Your task to perform on an android device: turn on the 24-hour format for clock Image 0: 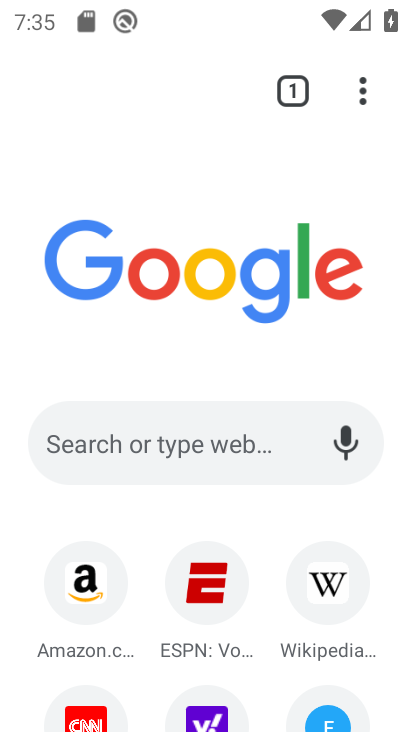
Step 0: press home button
Your task to perform on an android device: turn on the 24-hour format for clock Image 1: 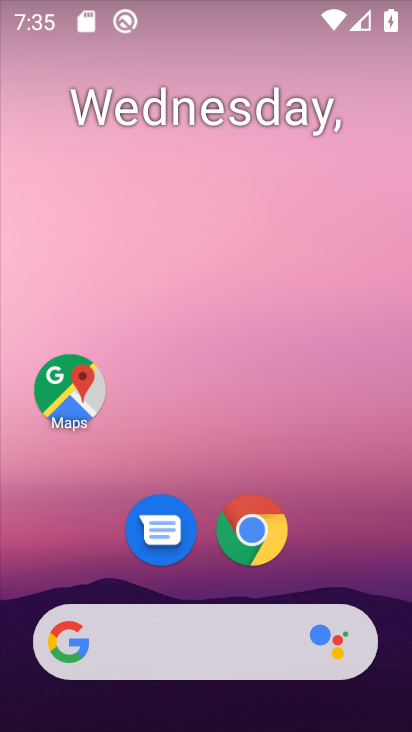
Step 1: drag from (386, 631) to (307, 115)
Your task to perform on an android device: turn on the 24-hour format for clock Image 2: 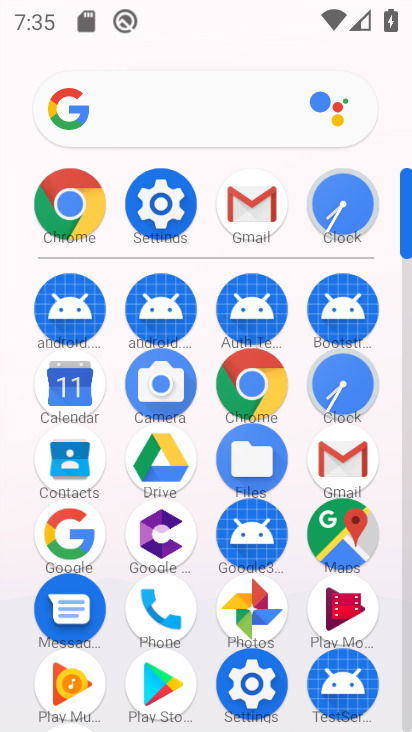
Step 2: click (354, 377)
Your task to perform on an android device: turn on the 24-hour format for clock Image 3: 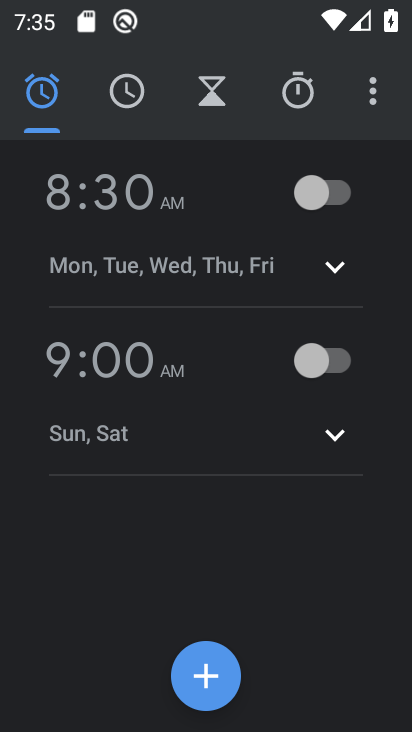
Step 3: click (386, 83)
Your task to perform on an android device: turn on the 24-hour format for clock Image 4: 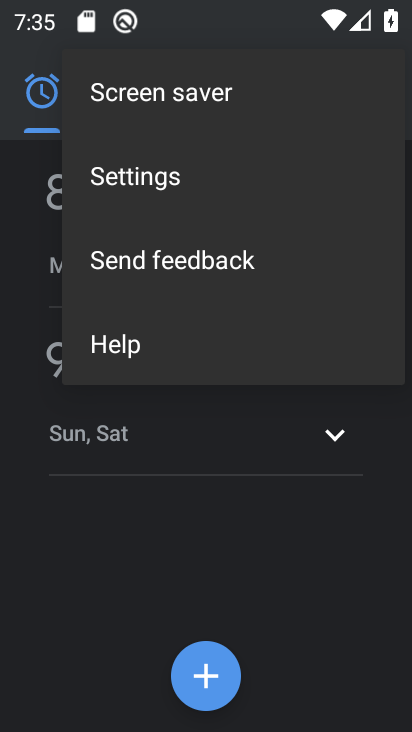
Step 4: click (235, 174)
Your task to perform on an android device: turn on the 24-hour format for clock Image 5: 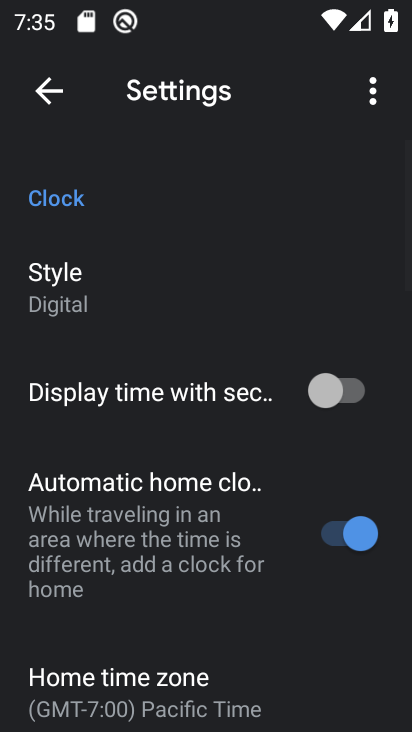
Step 5: drag from (179, 663) to (188, 298)
Your task to perform on an android device: turn on the 24-hour format for clock Image 6: 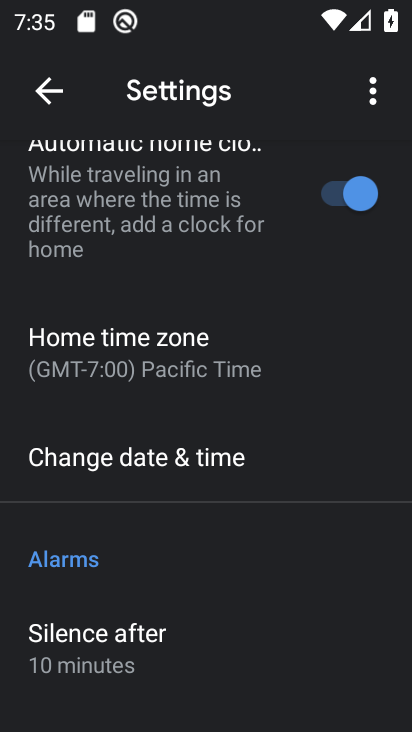
Step 6: click (194, 463)
Your task to perform on an android device: turn on the 24-hour format for clock Image 7: 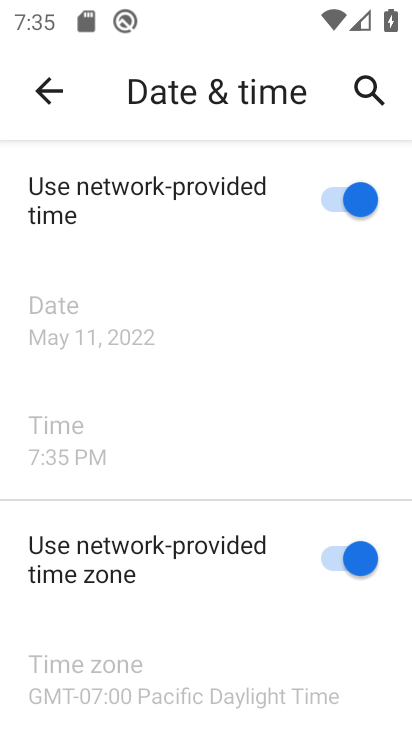
Step 7: task complete